Your task to perform on an android device: delete the emails in spam in the gmail app Image 0: 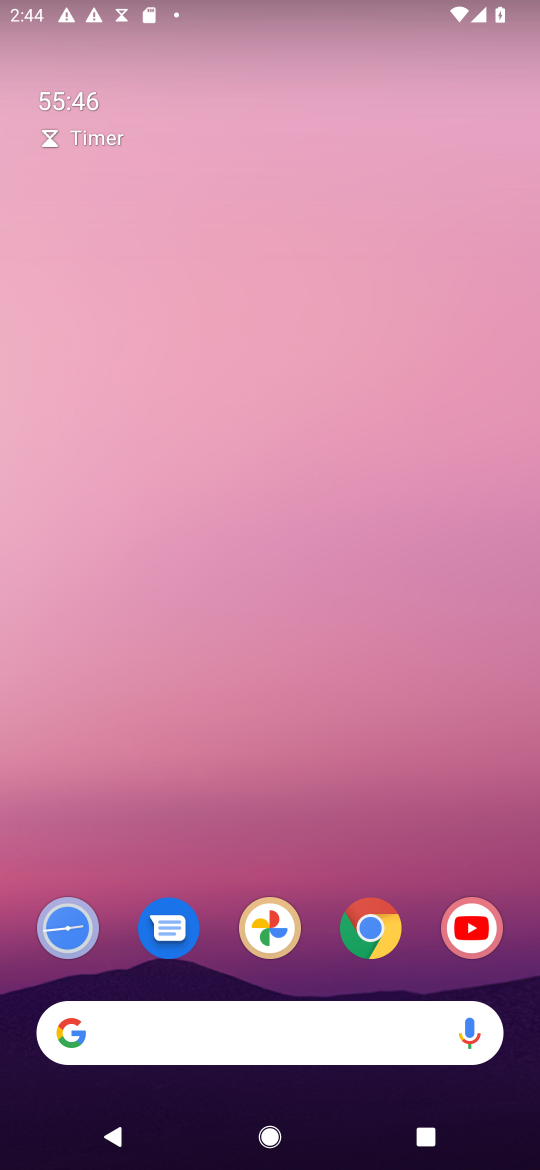
Step 0: drag from (327, 707) to (275, 114)
Your task to perform on an android device: delete the emails in spam in the gmail app Image 1: 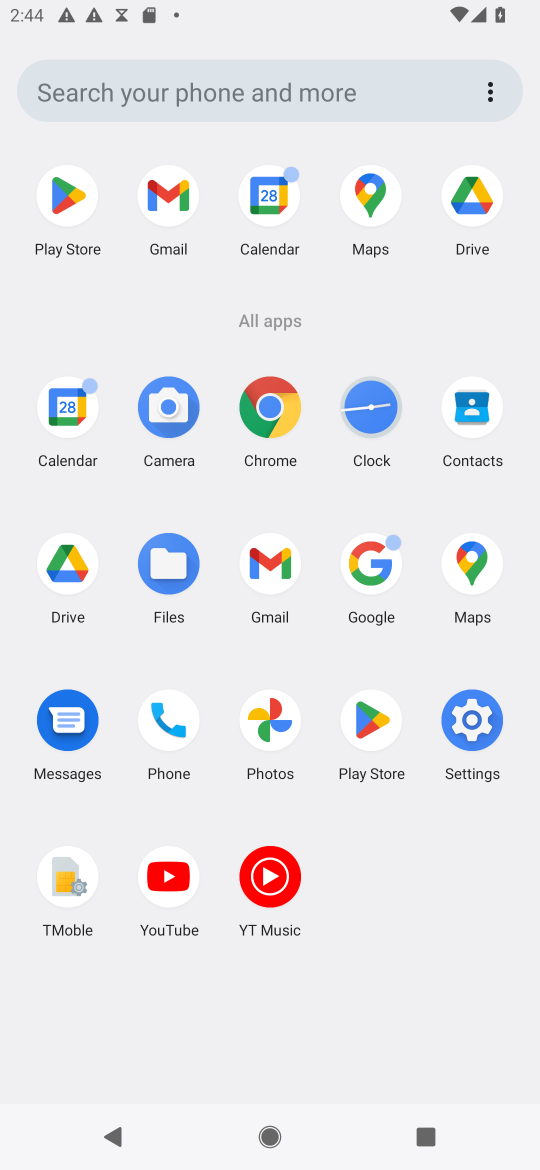
Step 1: click (286, 578)
Your task to perform on an android device: delete the emails in spam in the gmail app Image 2: 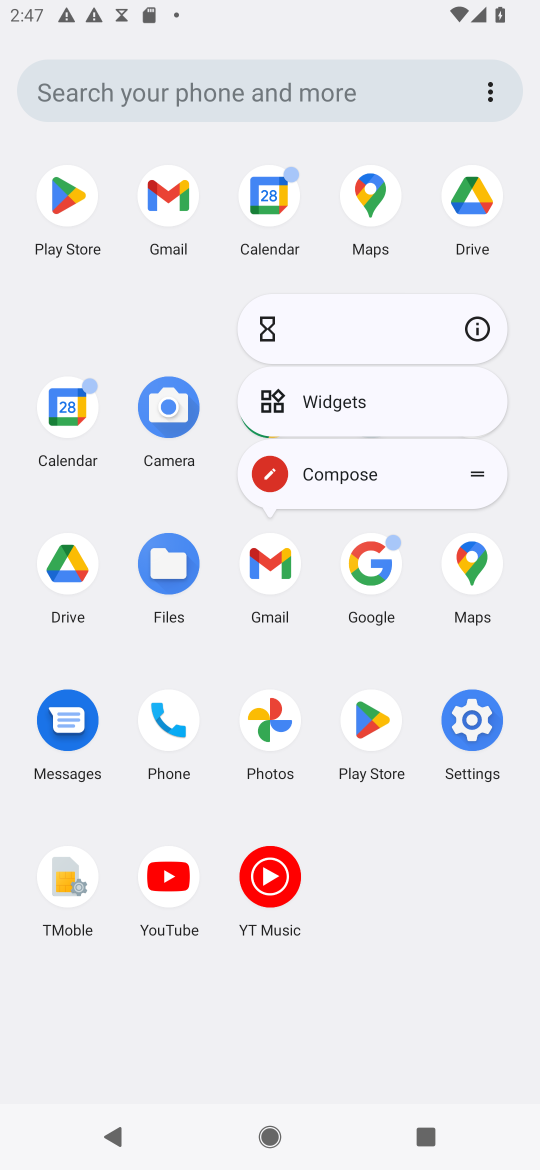
Step 2: click (271, 586)
Your task to perform on an android device: delete the emails in spam in the gmail app Image 3: 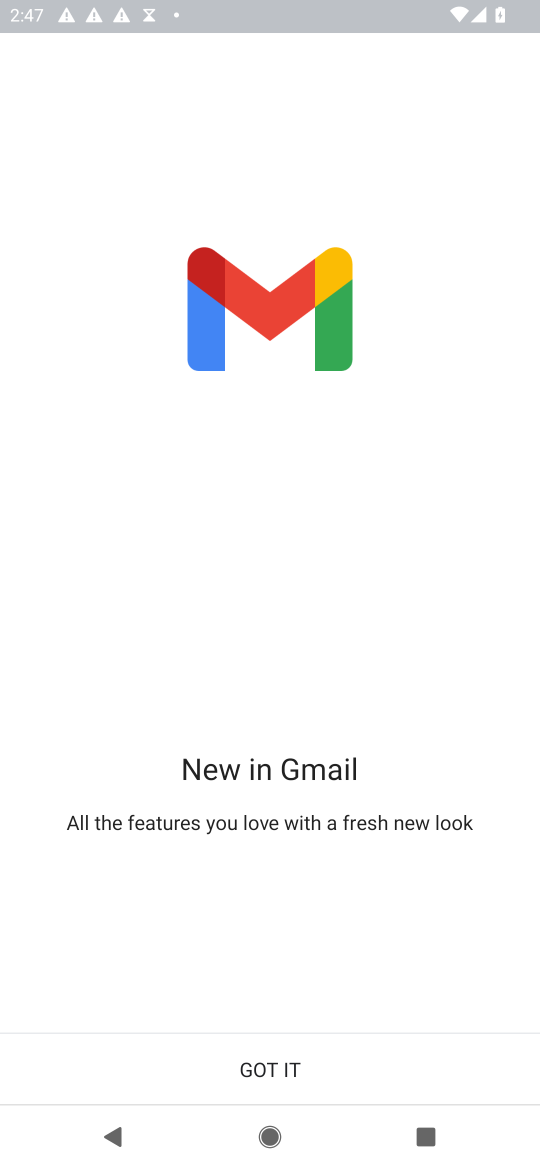
Step 3: click (264, 1082)
Your task to perform on an android device: delete the emails in spam in the gmail app Image 4: 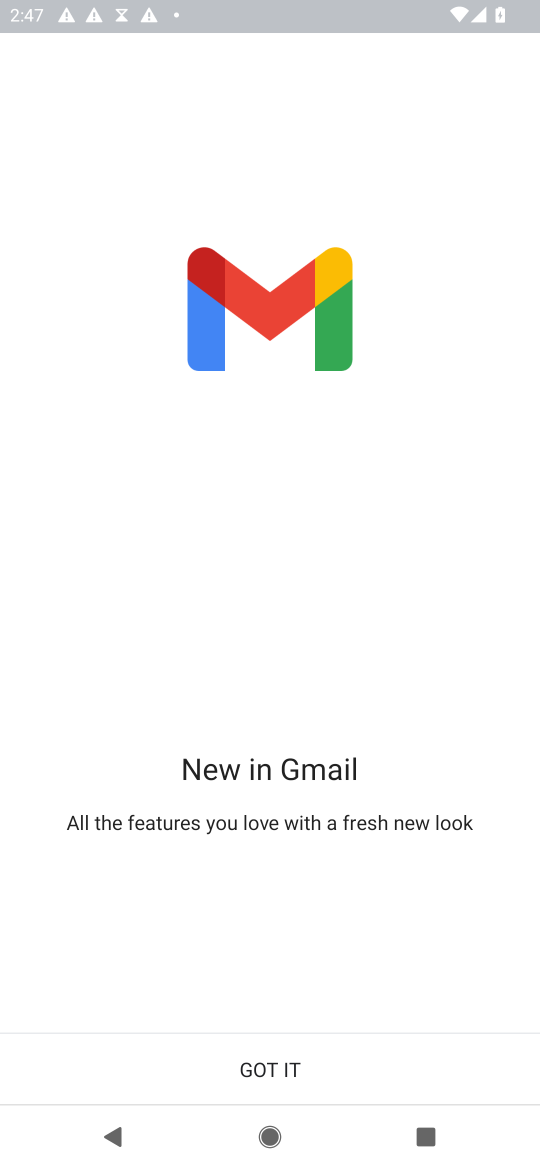
Step 4: click (253, 1086)
Your task to perform on an android device: delete the emails in spam in the gmail app Image 5: 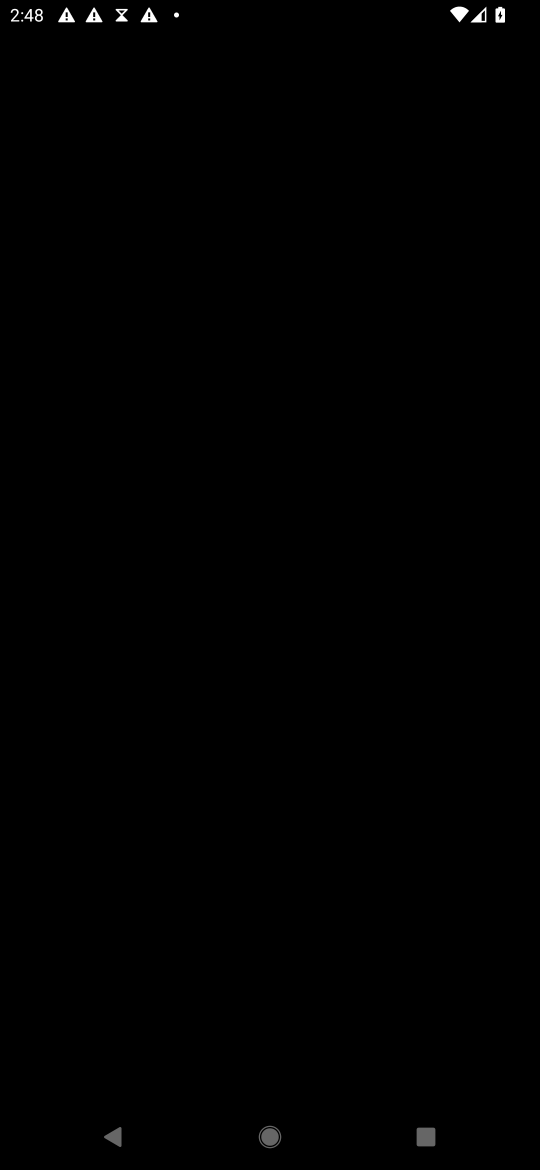
Step 5: click (286, 1085)
Your task to perform on an android device: delete the emails in spam in the gmail app Image 6: 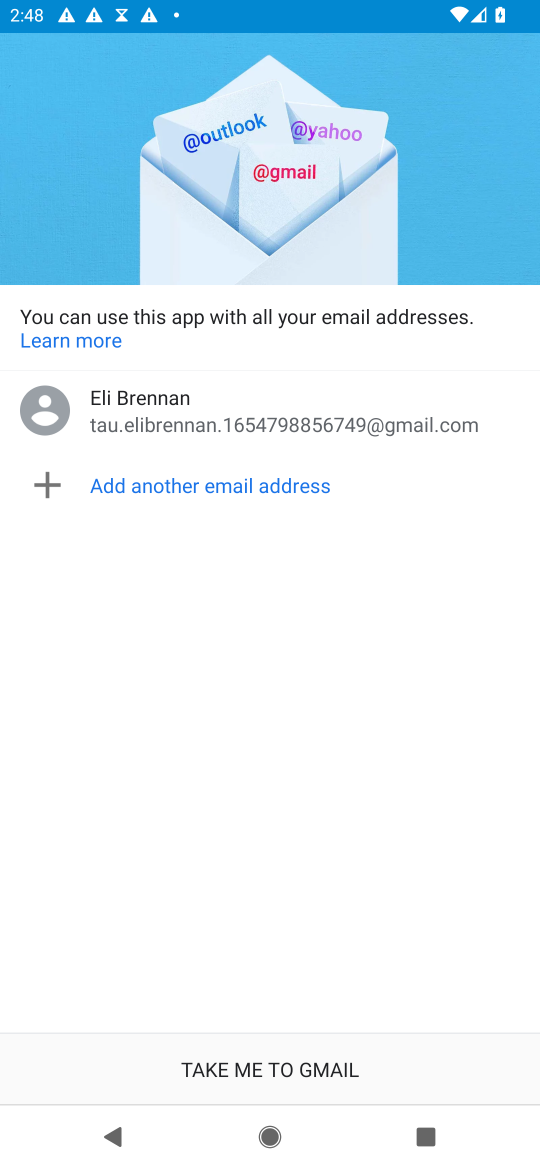
Step 6: click (322, 1078)
Your task to perform on an android device: delete the emails in spam in the gmail app Image 7: 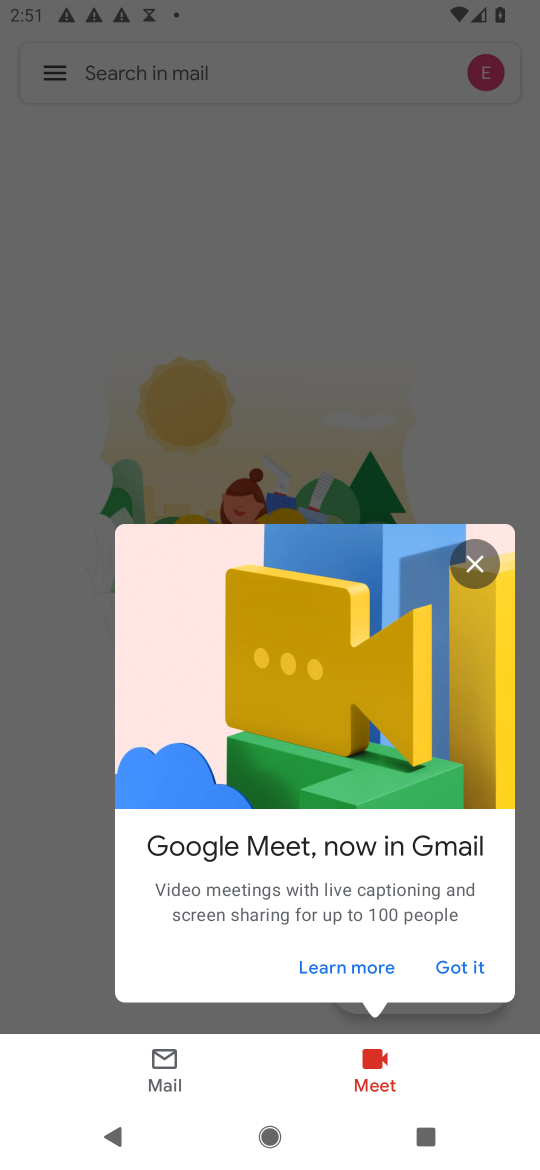
Step 7: click (486, 958)
Your task to perform on an android device: delete the emails in spam in the gmail app Image 8: 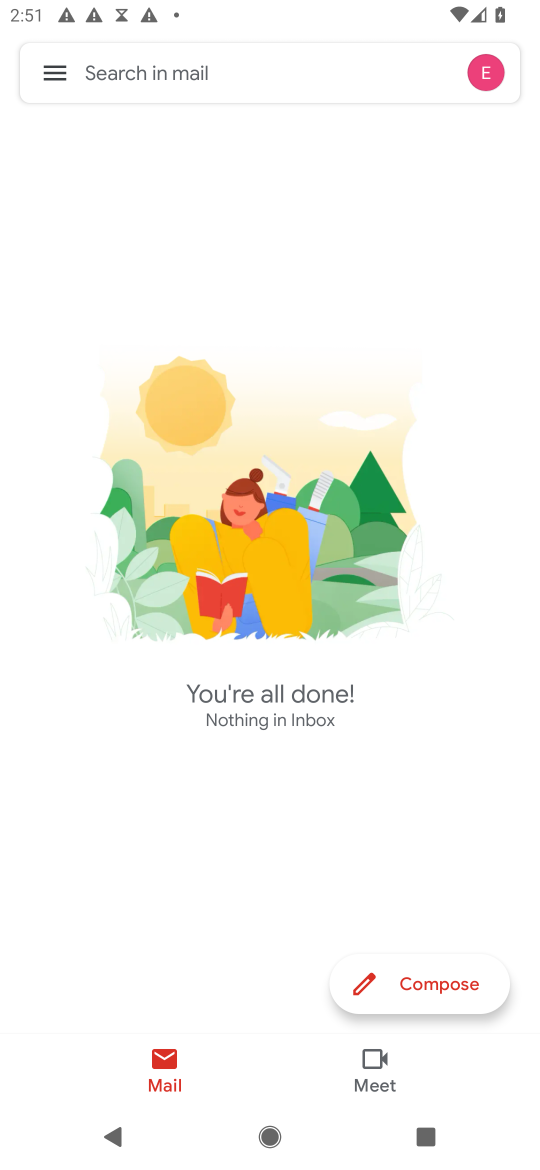
Step 8: click (50, 74)
Your task to perform on an android device: delete the emails in spam in the gmail app Image 9: 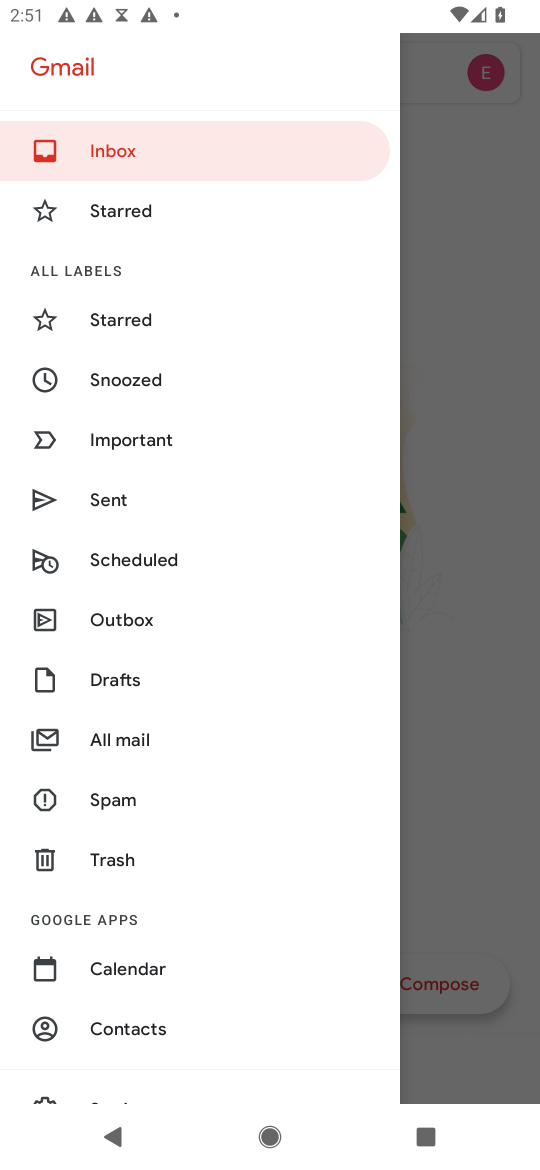
Step 9: click (155, 803)
Your task to perform on an android device: delete the emails in spam in the gmail app Image 10: 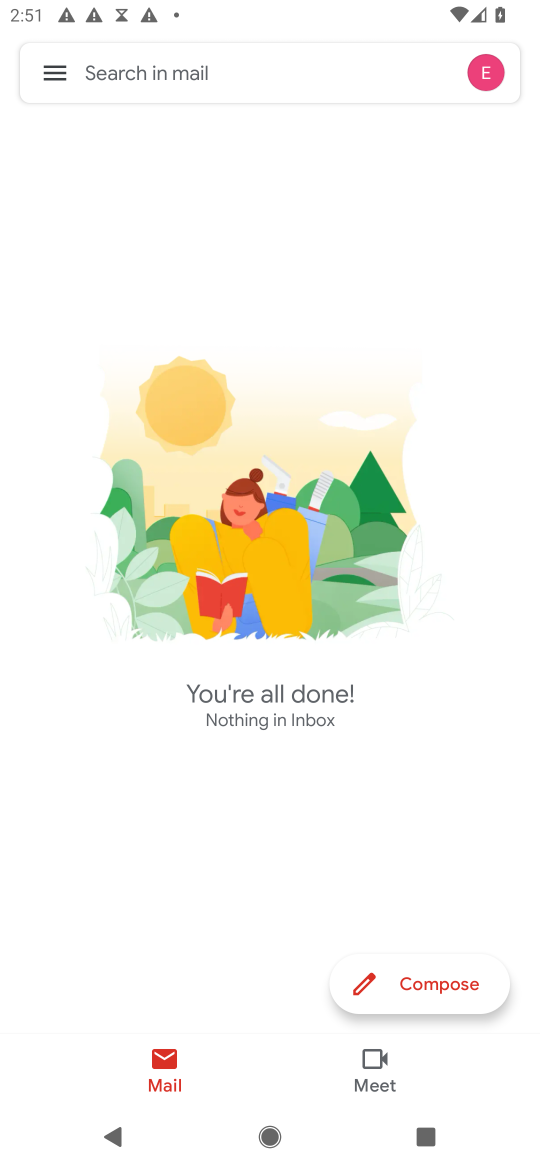
Step 10: task complete